Your task to perform on an android device: Open the calculator app Image 0: 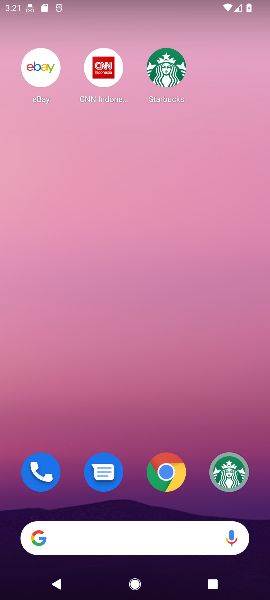
Step 0: drag from (127, 494) to (56, 16)
Your task to perform on an android device: Open the calculator app Image 1: 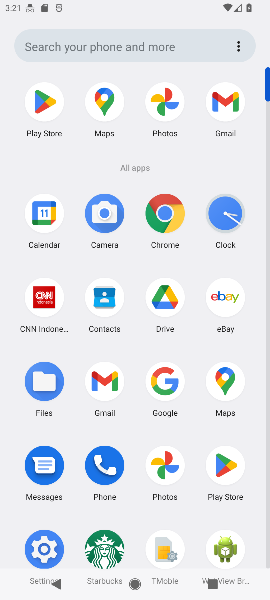
Step 1: click (107, 37)
Your task to perform on an android device: Open the calculator app Image 2: 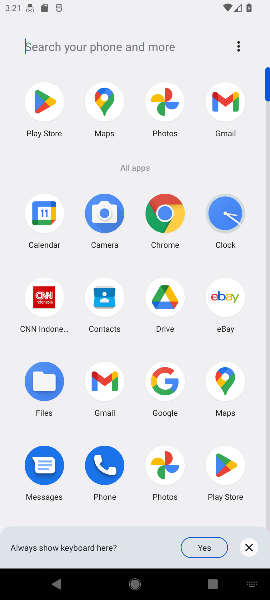
Step 2: type "calculator"
Your task to perform on an android device: Open the calculator app Image 3: 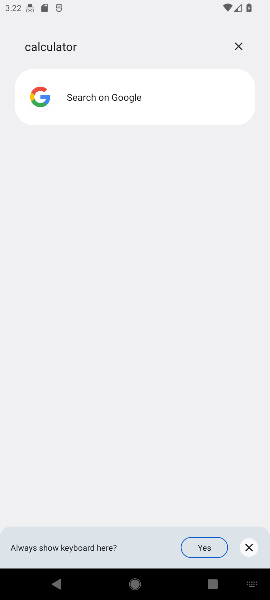
Step 3: press home button
Your task to perform on an android device: Open the calculator app Image 4: 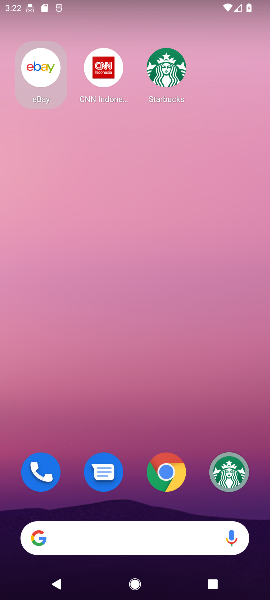
Step 4: drag from (123, 497) to (161, 91)
Your task to perform on an android device: Open the calculator app Image 5: 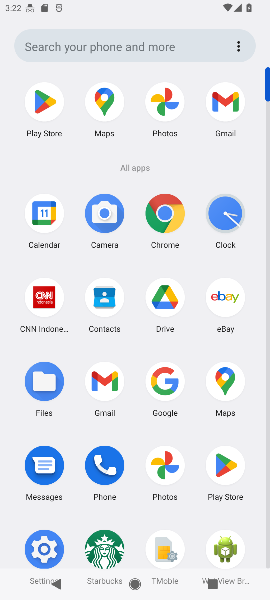
Step 5: click (64, 119)
Your task to perform on an android device: Open the calculator app Image 6: 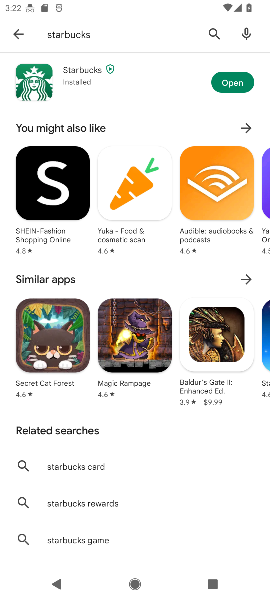
Step 6: click (216, 35)
Your task to perform on an android device: Open the calculator app Image 7: 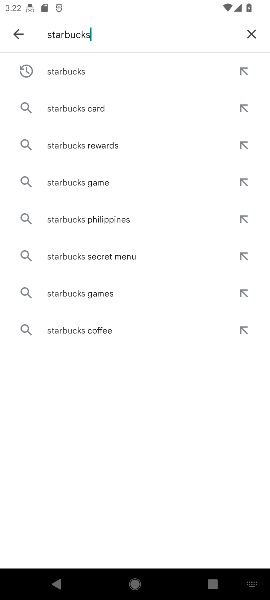
Step 7: click (255, 39)
Your task to perform on an android device: Open the calculator app Image 8: 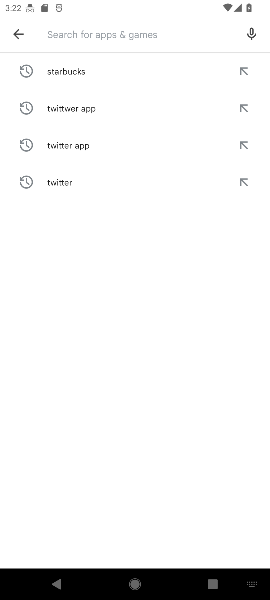
Step 8: type "calculator"
Your task to perform on an android device: Open the calculator app Image 9: 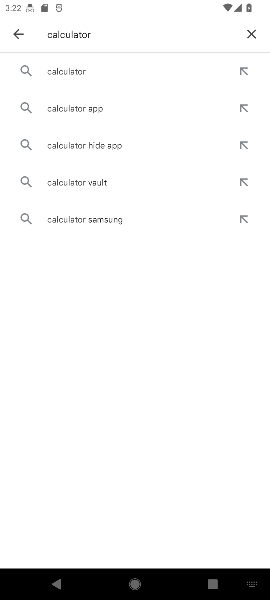
Step 9: click (126, 70)
Your task to perform on an android device: Open the calculator app Image 10: 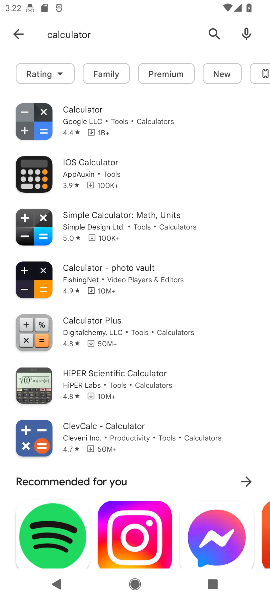
Step 10: click (82, 112)
Your task to perform on an android device: Open the calculator app Image 11: 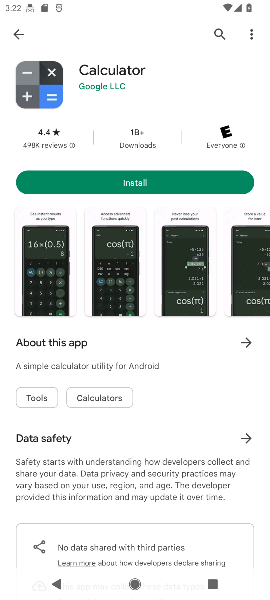
Step 11: click (92, 188)
Your task to perform on an android device: Open the calculator app Image 12: 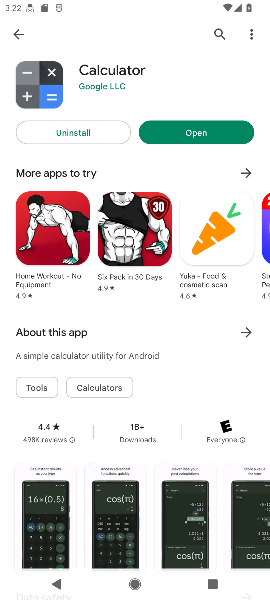
Step 12: click (203, 130)
Your task to perform on an android device: Open the calculator app Image 13: 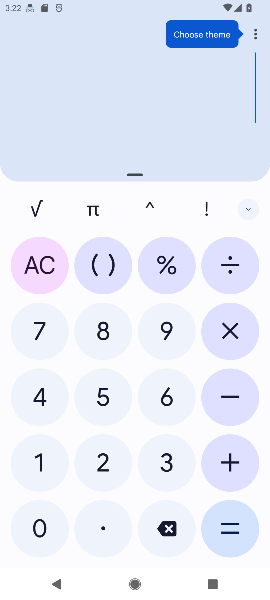
Step 13: task complete